Your task to perform on an android device: What's on my calendar tomorrow? Image 0: 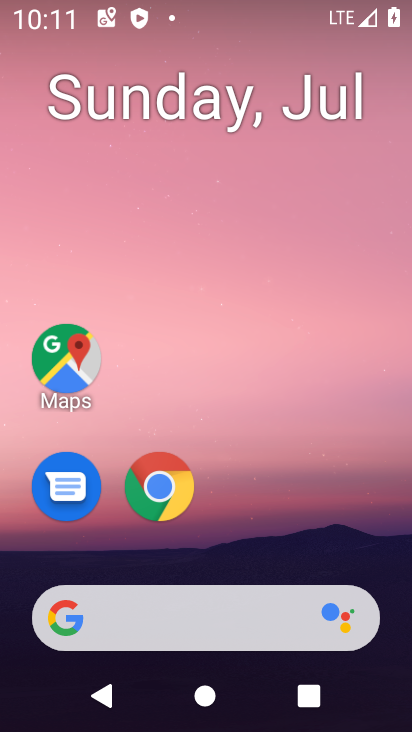
Step 0: press home button
Your task to perform on an android device: What's on my calendar tomorrow? Image 1: 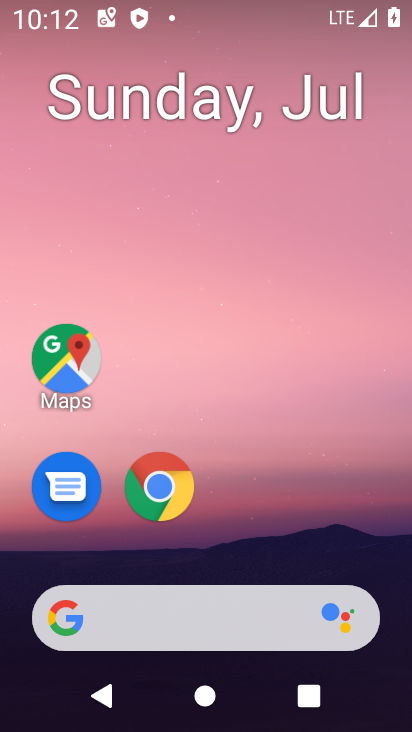
Step 1: drag from (364, 510) to (319, 133)
Your task to perform on an android device: What's on my calendar tomorrow? Image 2: 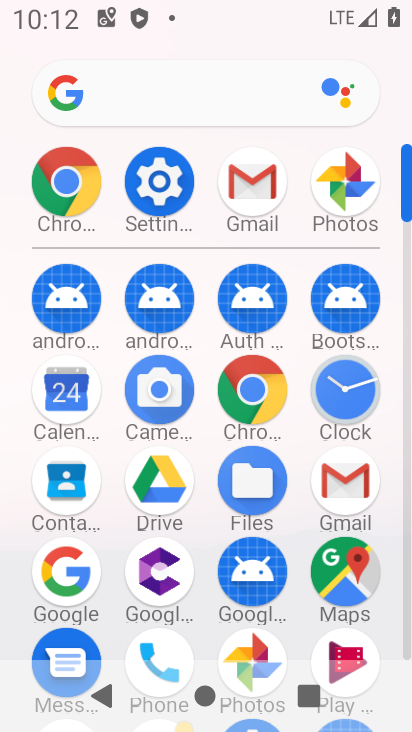
Step 2: click (68, 393)
Your task to perform on an android device: What's on my calendar tomorrow? Image 3: 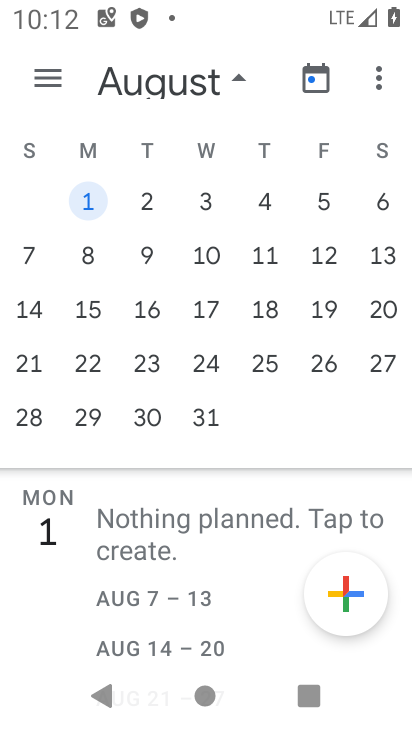
Step 3: drag from (175, 436) to (190, 223)
Your task to perform on an android device: What's on my calendar tomorrow? Image 4: 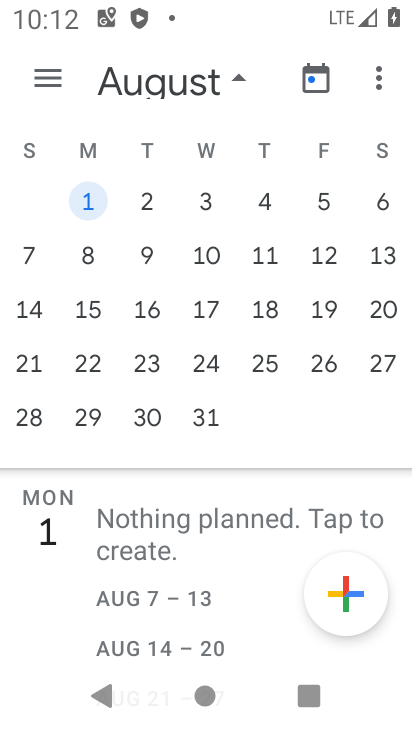
Step 4: drag from (211, 564) to (197, 245)
Your task to perform on an android device: What's on my calendar tomorrow? Image 5: 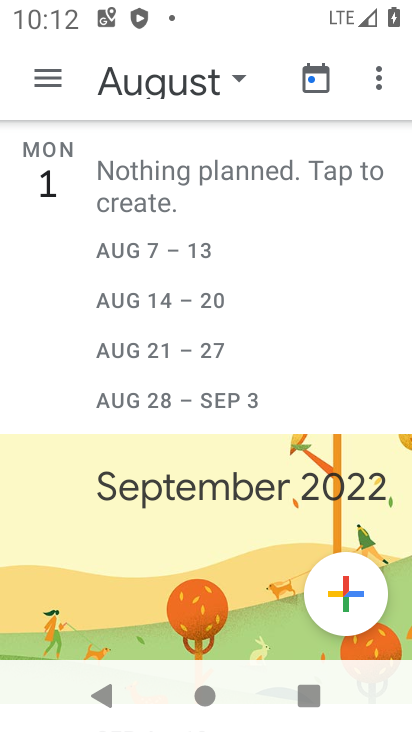
Step 5: drag from (198, 171) to (211, 472)
Your task to perform on an android device: What's on my calendar tomorrow? Image 6: 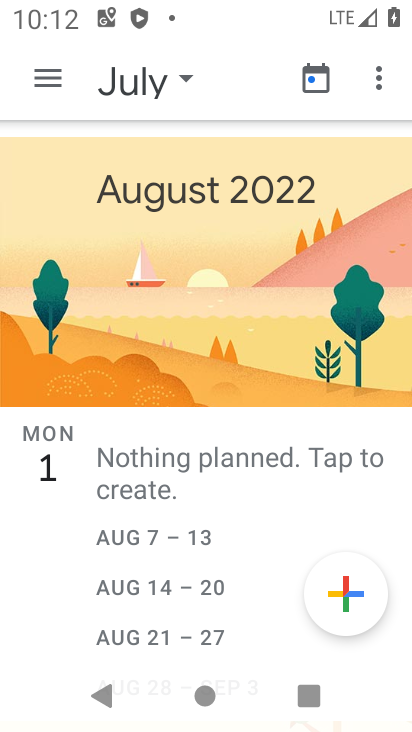
Step 6: drag from (197, 193) to (195, 529)
Your task to perform on an android device: What's on my calendar tomorrow? Image 7: 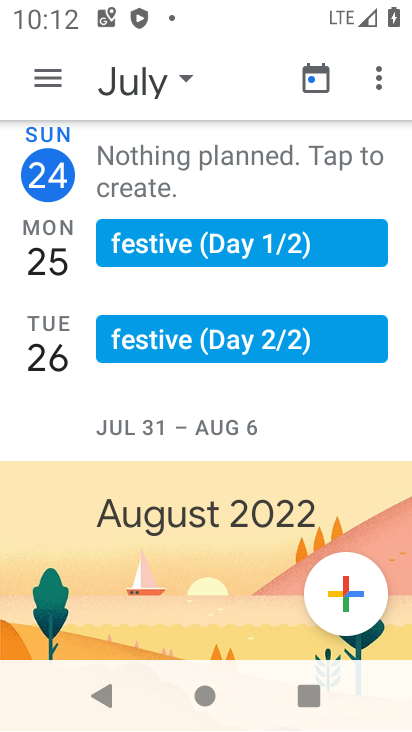
Step 7: click (192, 343)
Your task to perform on an android device: What's on my calendar tomorrow? Image 8: 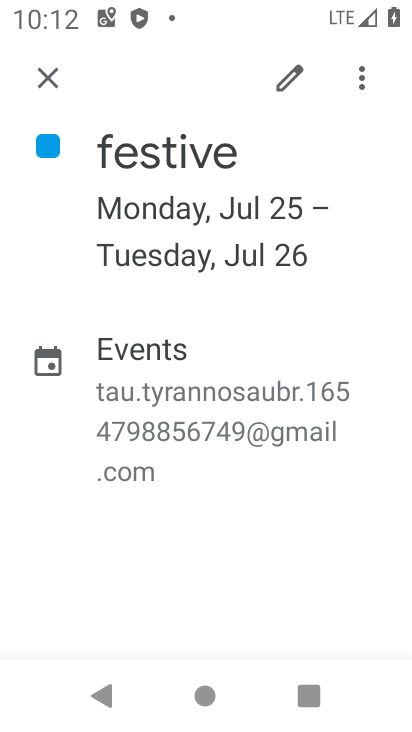
Step 8: task complete